Your task to perform on an android device: check android version Image 0: 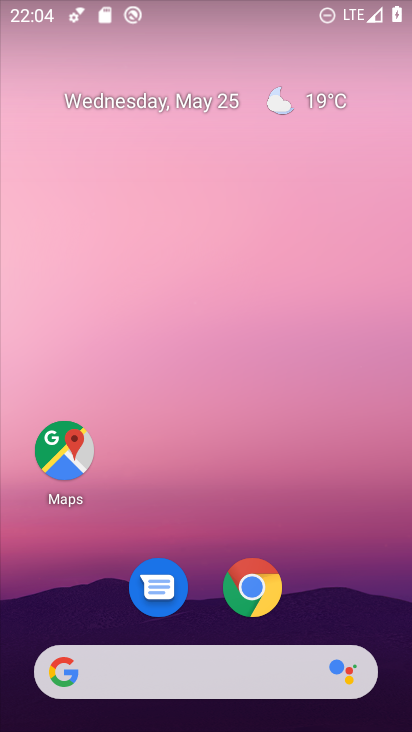
Step 0: drag from (402, 637) to (300, 86)
Your task to perform on an android device: check android version Image 1: 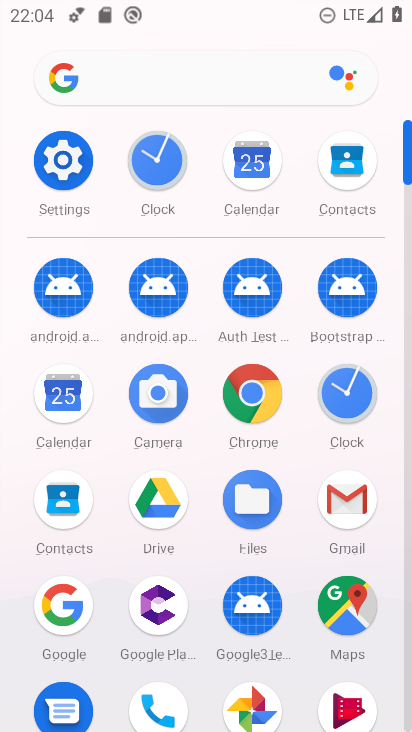
Step 1: click (409, 693)
Your task to perform on an android device: check android version Image 2: 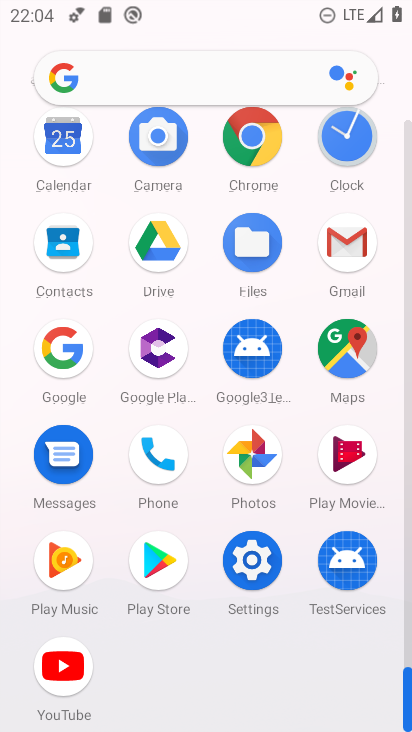
Step 2: click (252, 559)
Your task to perform on an android device: check android version Image 3: 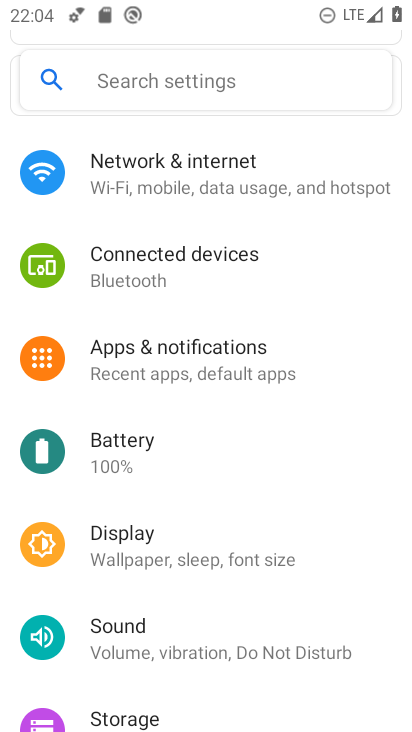
Step 3: drag from (328, 712) to (295, 189)
Your task to perform on an android device: check android version Image 4: 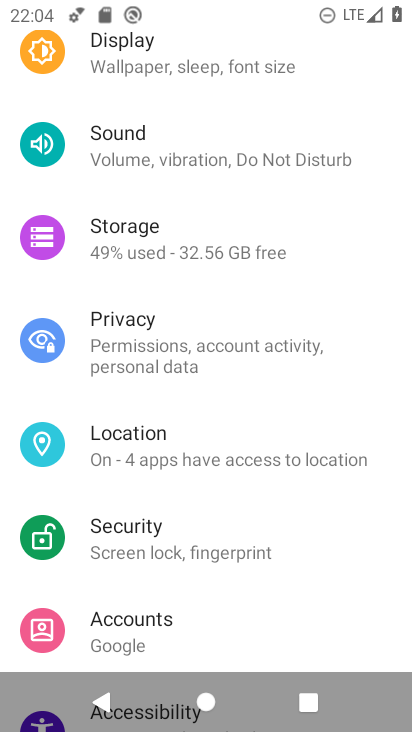
Step 4: drag from (327, 574) to (304, 125)
Your task to perform on an android device: check android version Image 5: 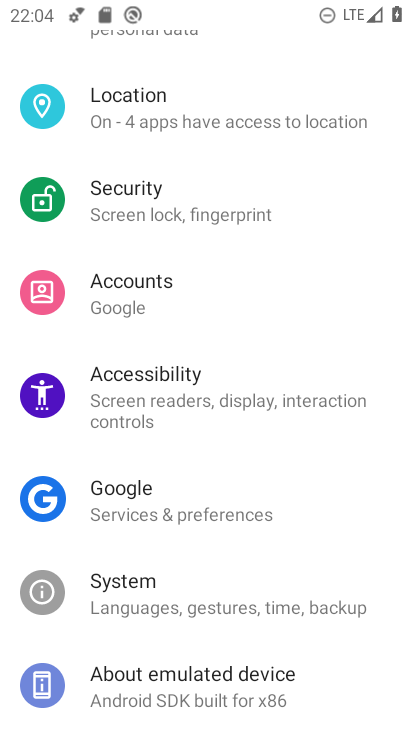
Step 5: click (147, 672)
Your task to perform on an android device: check android version Image 6: 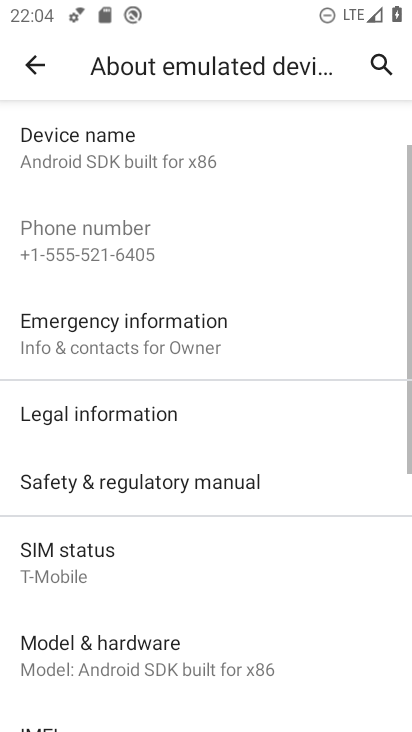
Step 6: drag from (310, 595) to (309, 147)
Your task to perform on an android device: check android version Image 7: 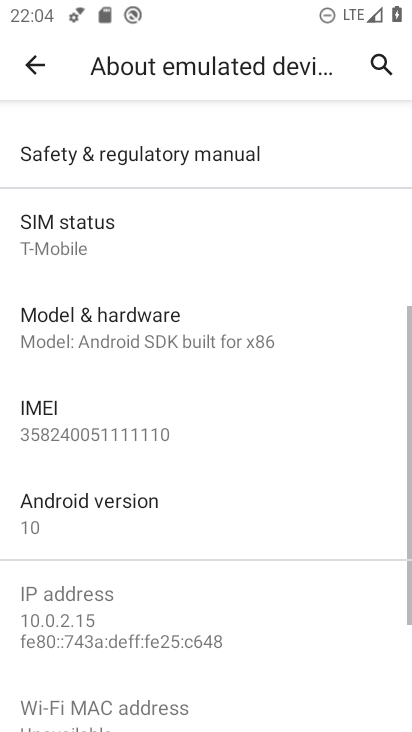
Step 7: click (72, 506)
Your task to perform on an android device: check android version Image 8: 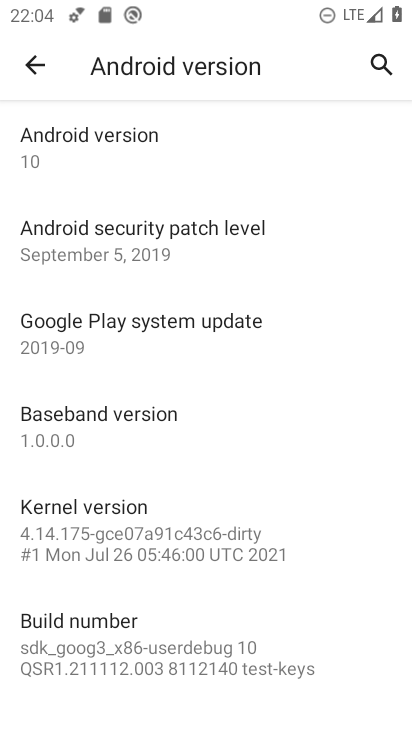
Step 8: task complete